Your task to perform on an android device: open chrome and create a bookmark for the current page Image 0: 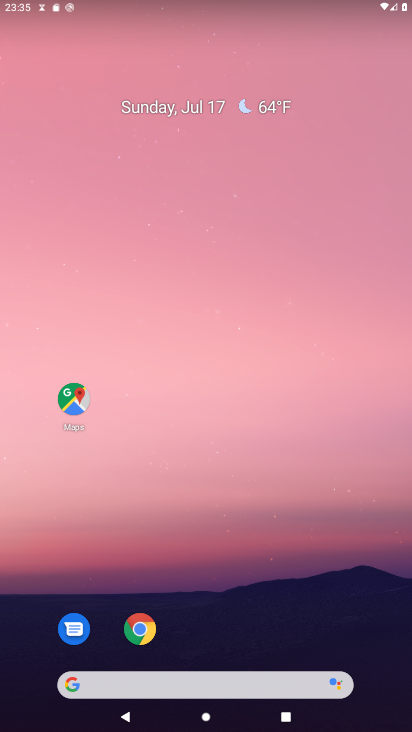
Step 0: drag from (236, 616) to (226, 378)
Your task to perform on an android device: open chrome and create a bookmark for the current page Image 1: 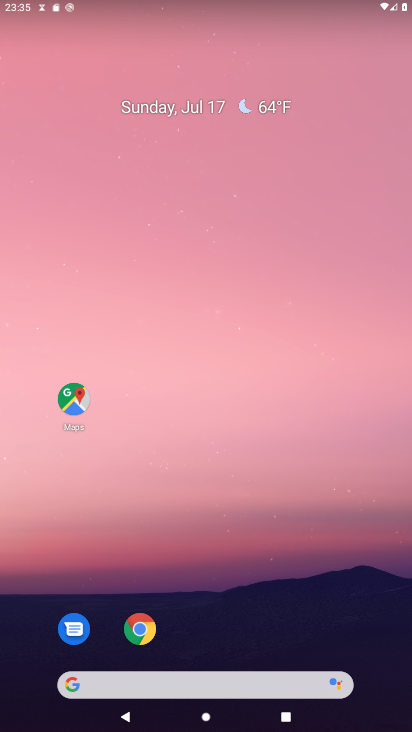
Step 1: click (140, 622)
Your task to perform on an android device: open chrome and create a bookmark for the current page Image 2: 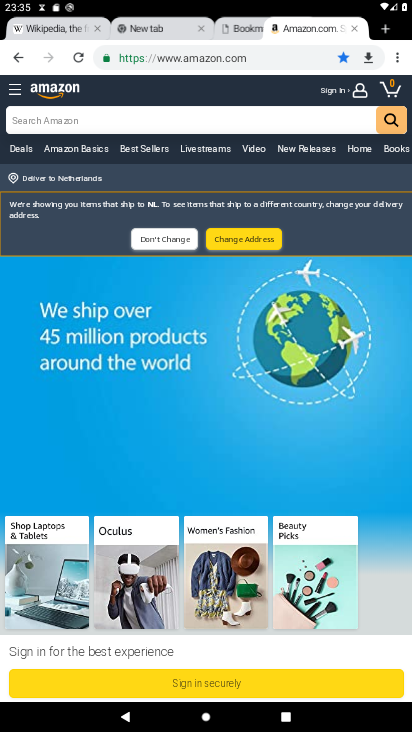
Step 2: click (410, 52)
Your task to perform on an android device: open chrome and create a bookmark for the current page Image 3: 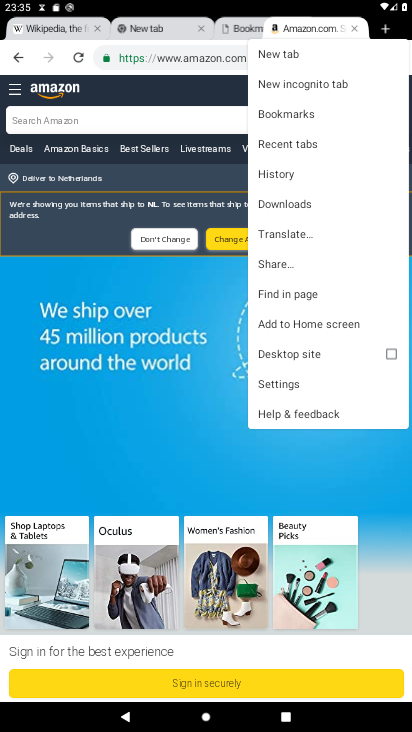
Step 3: click (177, 423)
Your task to perform on an android device: open chrome and create a bookmark for the current page Image 4: 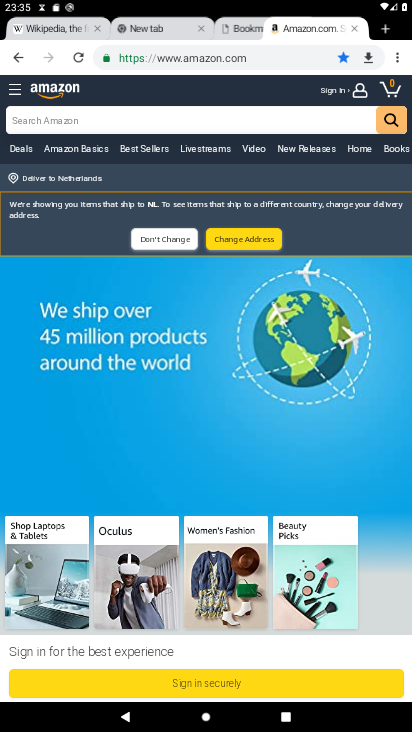
Step 4: click (309, 29)
Your task to perform on an android device: open chrome and create a bookmark for the current page Image 5: 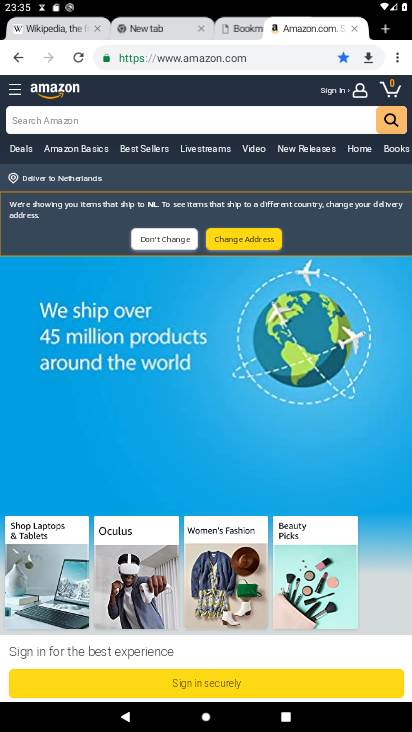
Step 5: click (233, 26)
Your task to perform on an android device: open chrome and create a bookmark for the current page Image 6: 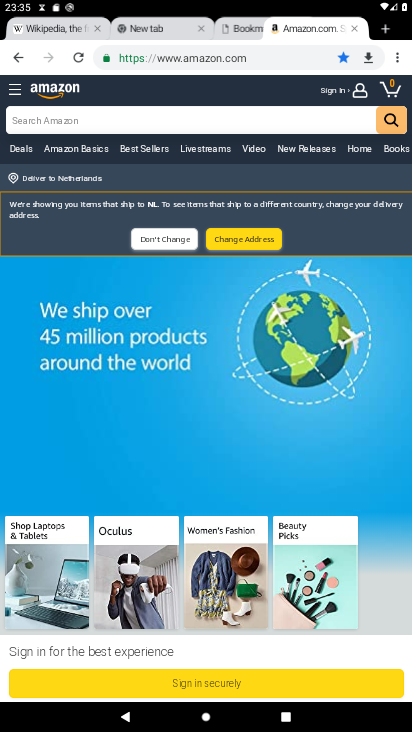
Step 6: click (233, 23)
Your task to perform on an android device: open chrome and create a bookmark for the current page Image 7: 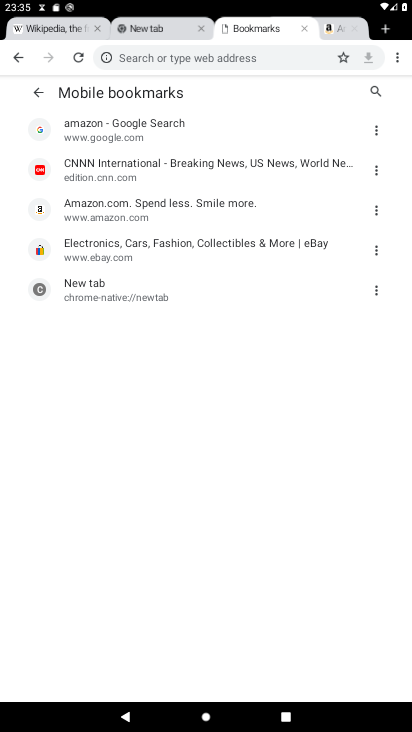
Step 7: click (233, 23)
Your task to perform on an android device: open chrome and create a bookmark for the current page Image 8: 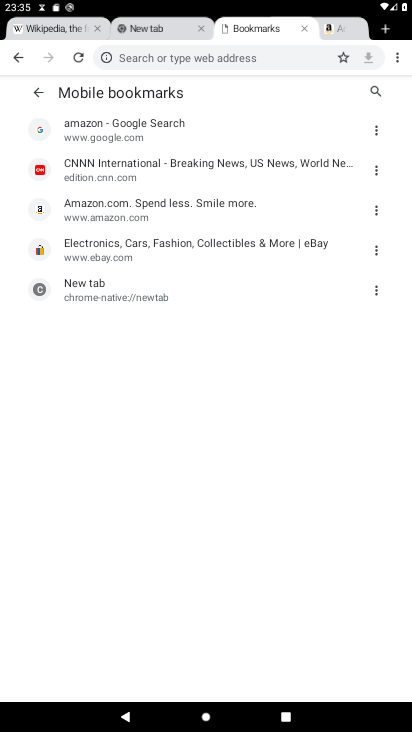
Step 8: click (334, 28)
Your task to perform on an android device: open chrome and create a bookmark for the current page Image 9: 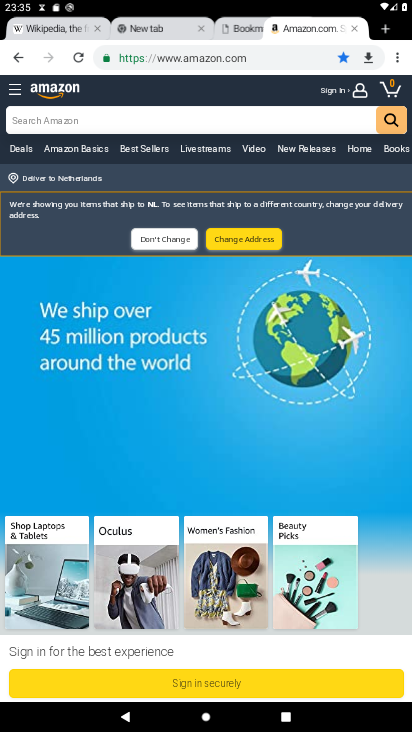
Step 9: task complete